Your task to perform on an android device: Go to internet settings Image 0: 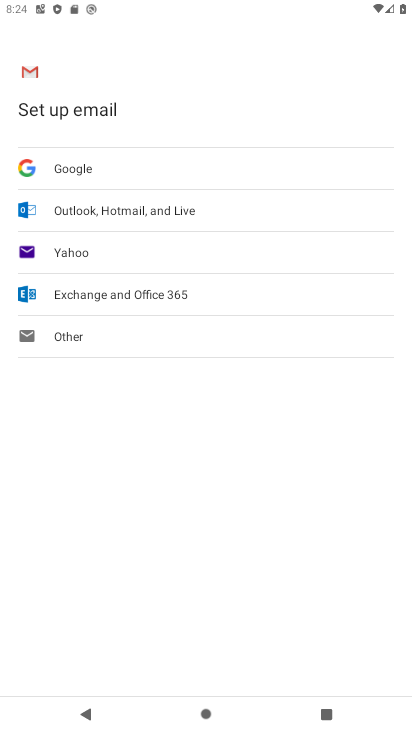
Step 0: press home button
Your task to perform on an android device: Go to internet settings Image 1: 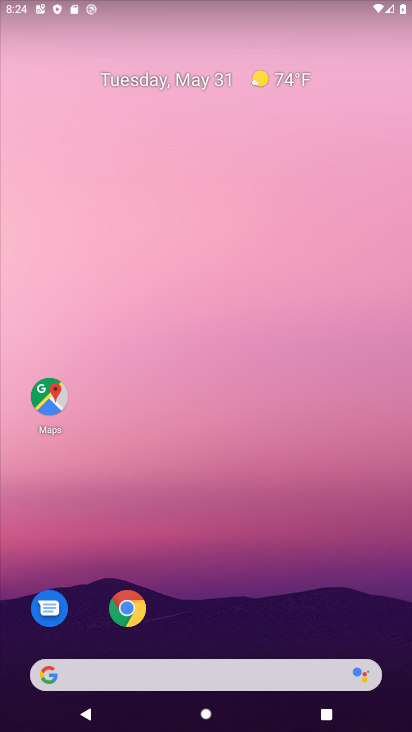
Step 1: drag from (211, 650) to (235, 25)
Your task to perform on an android device: Go to internet settings Image 2: 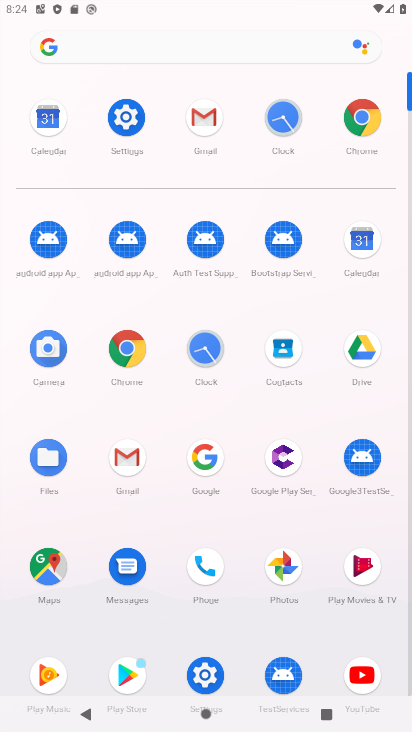
Step 2: click (115, 106)
Your task to perform on an android device: Go to internet settings Image 3: 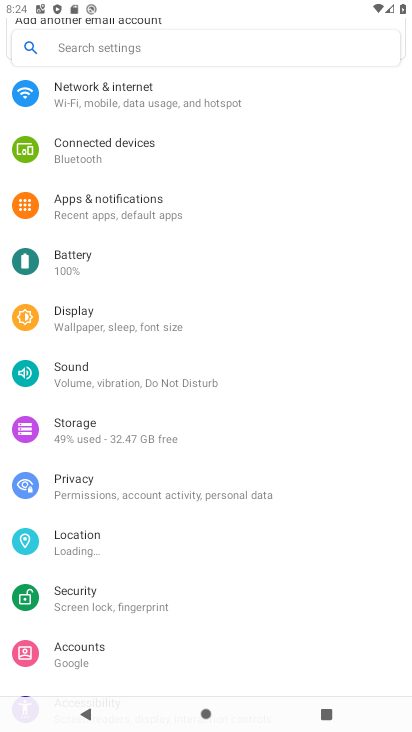
Step 3: drag from (115, 106) to (79, 521)
Your task to perform on an android device: Go to internet settings Image 4: 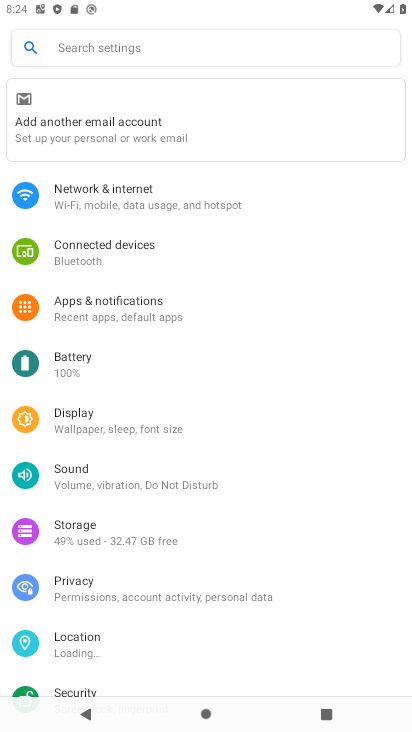
Step 4: click (144, 192)
Your task to perform on an android device: Go to internet settings Image 5: 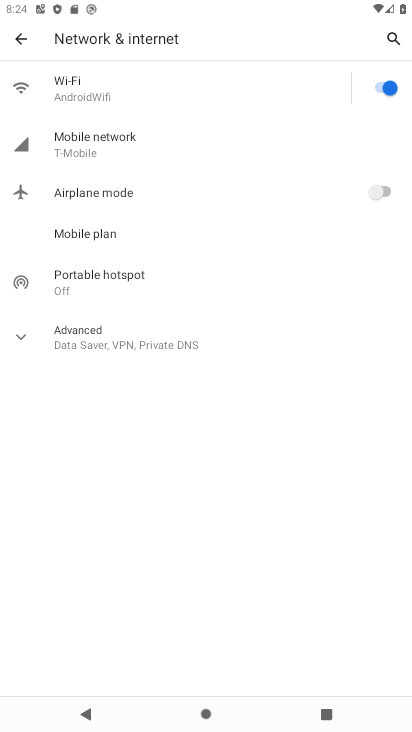
Step 5: click (111, 145)
Your task to perform on an android device: Go to internet settings Image 6: 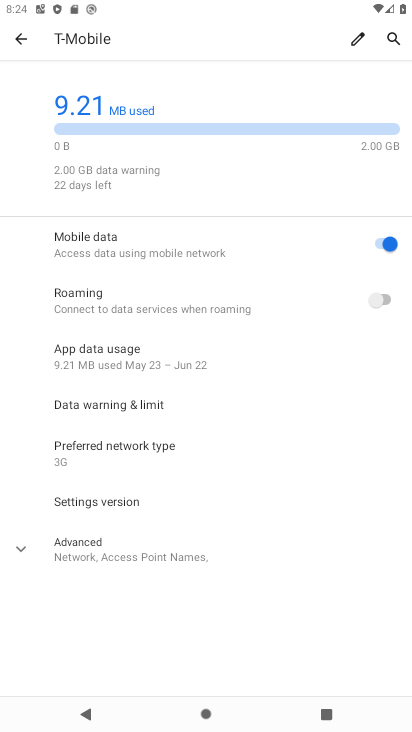
Step 6: task complete